Your task to perform on an android device: Open Reddit.com Image 0: 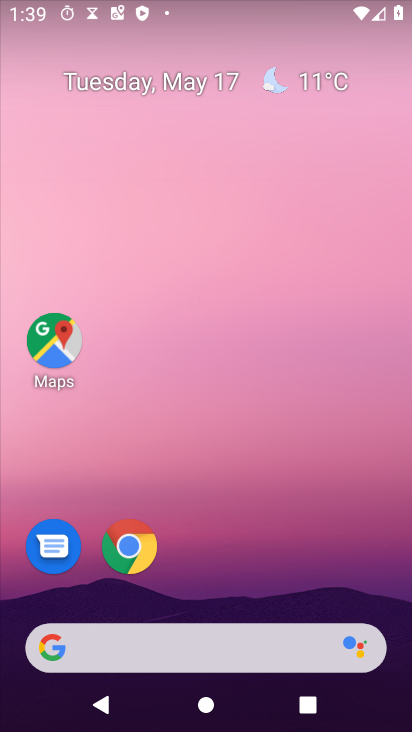
Step 0: drag from (156, 648) to (356, 90)
Your task to perform on an android device: Open Reddit.com Image 1: 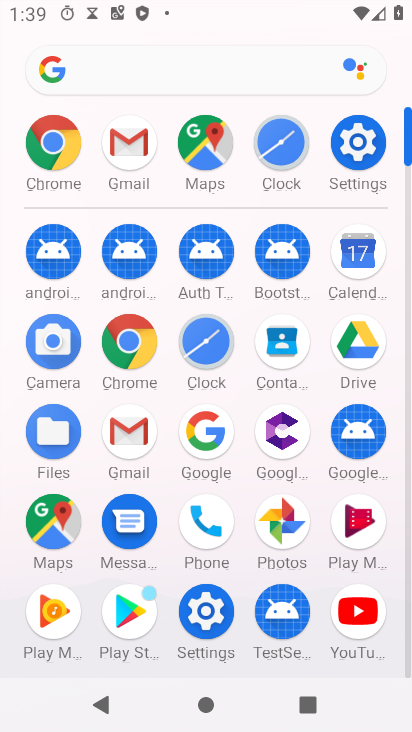
Step 1: click (58, 149)
Your task to perform on an android device: Open Reddit.com Image 2: 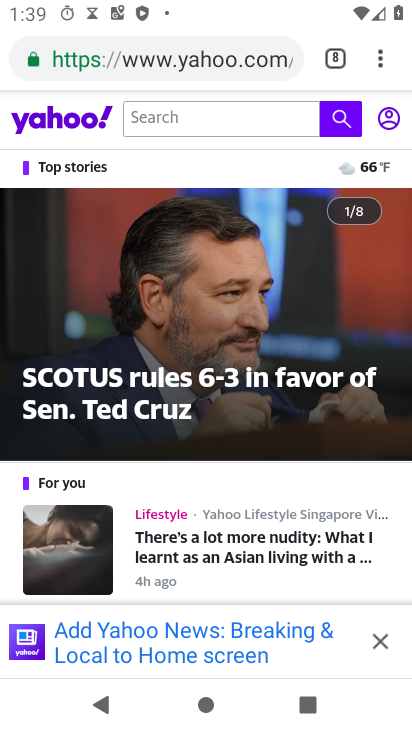
Step 2: drag from (380, 68) to (267, 118)
Your task to perform on an android device: Open Reddit.com Image 3: 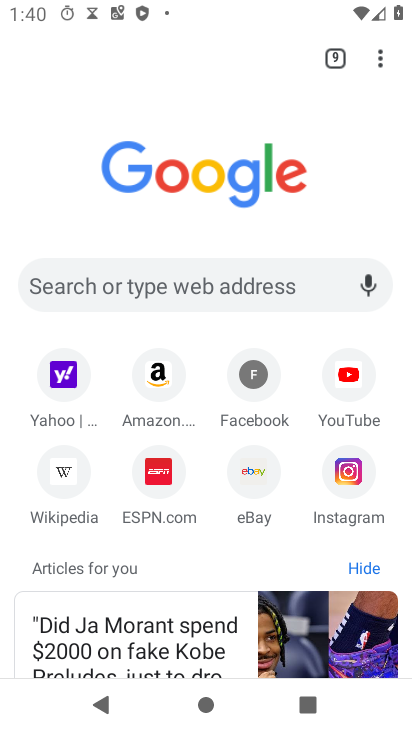
Step 3: click (79, 291)
Your task to perform on an android device: Open Reddit.com Image 4: 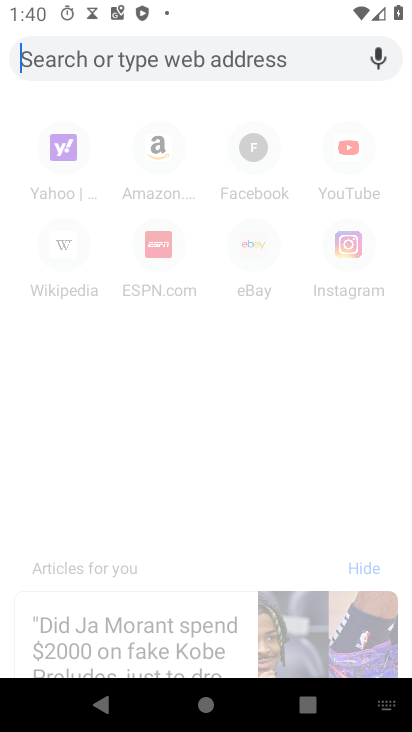
Step 4: type "reddit.com"
Your task to perform on an android device: Open Reddit.com Image 5: 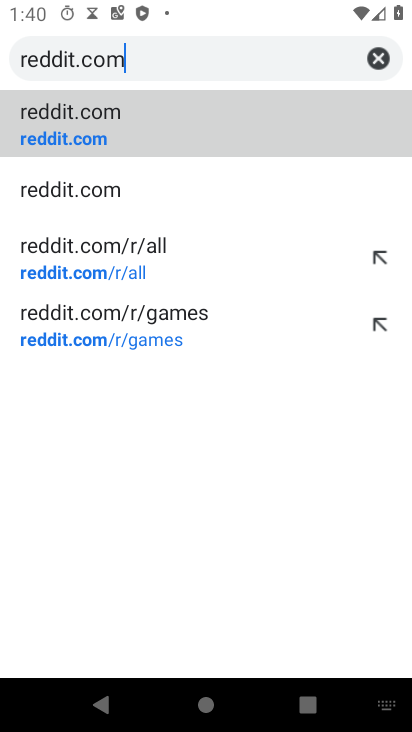
Step 5: click (148, 120)
Your task to perform on an android device: Open Reddit.com Image 6: 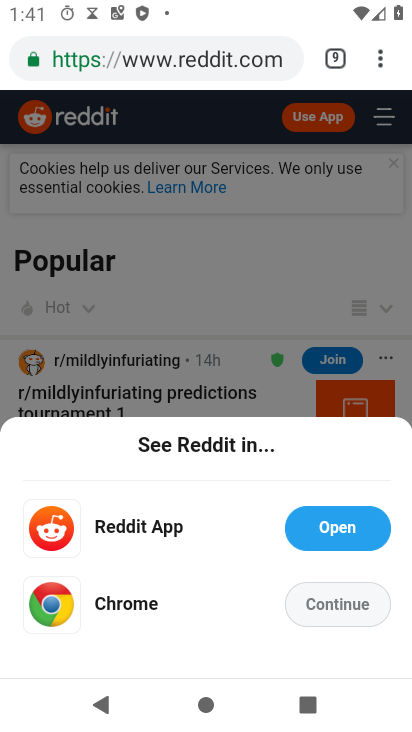
Step 6: task complete